Your task to perform on an android device: Go to Reddit.com Image 0: 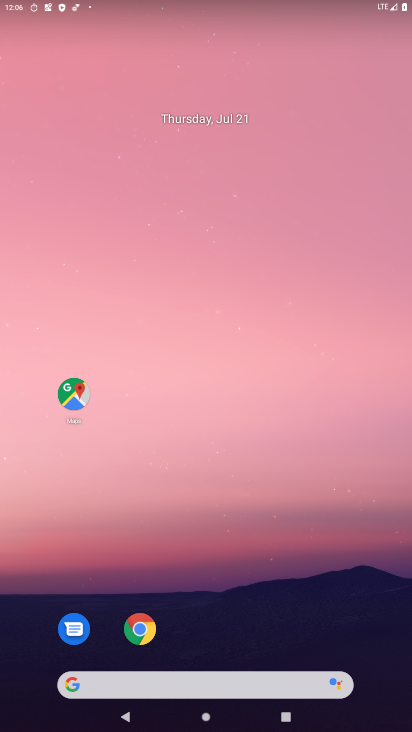
Step 0: drag from (183, 676) to (238, 17)
Your task to perform on an android device: Go to Reddit.com Image 1: 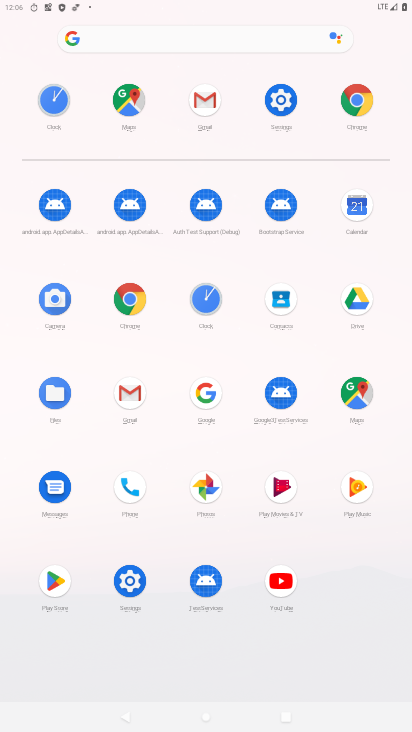
Step 1: click (131, 293)
Your task to perform on an android device: Go to Reddit.com Image 2: 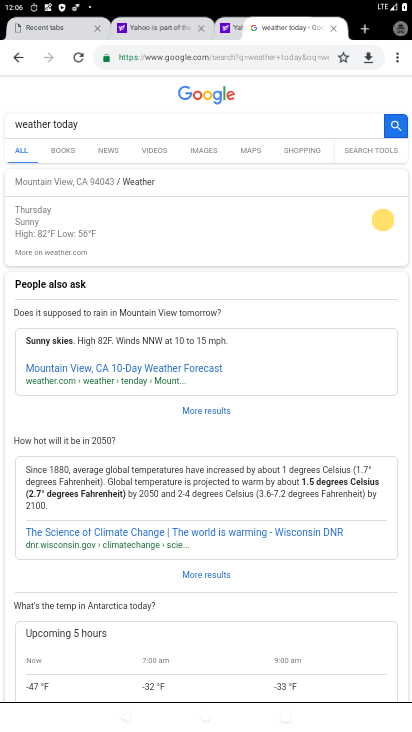
Step 2: click (232, 43)
Your task to perform on an android device: Go to Reddit.com Image 3: 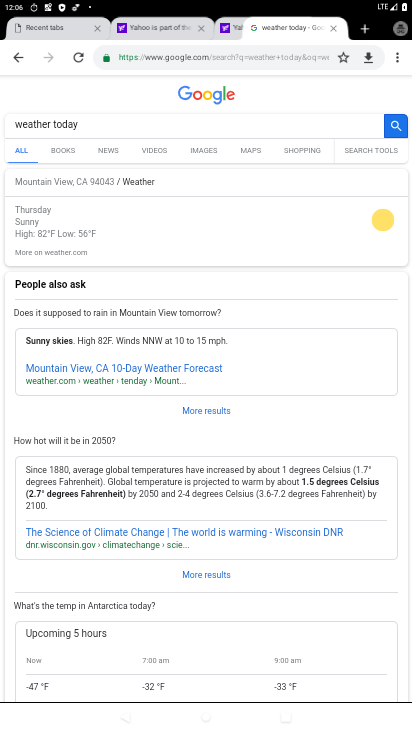
Step 3: click (255, 57)
Your task to perform on an android device: Go to Reddit.com Image 4: 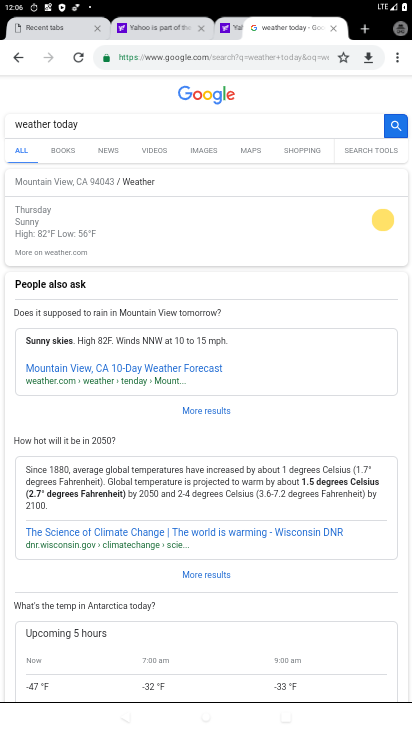
Step 4: click (255, 57)
Your task to perform on an android device: Go to Reddit.com Image 5: 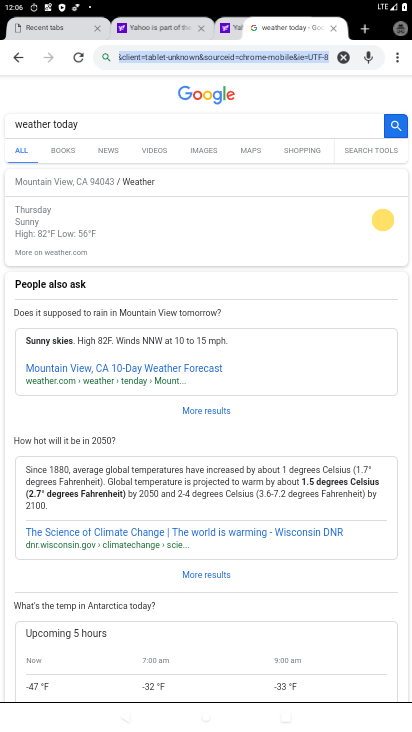
Step 5: click (255, 57)
Your task to perform on an android device: Go to Reddit.com Image 6: 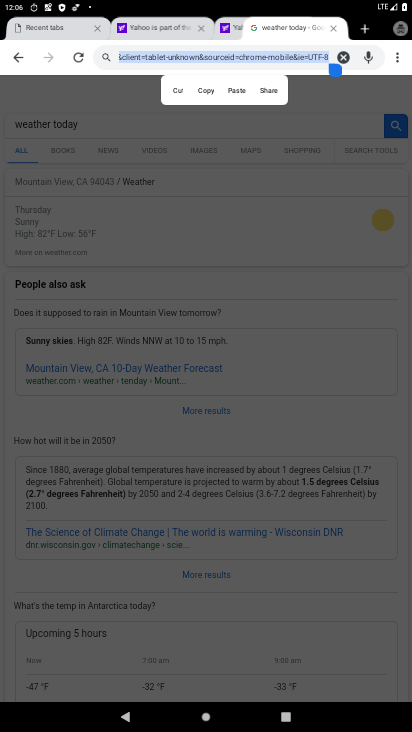
Step 6: click (343, 55)
Your task to perform on an android device: Go to Reddit.com Image 7: 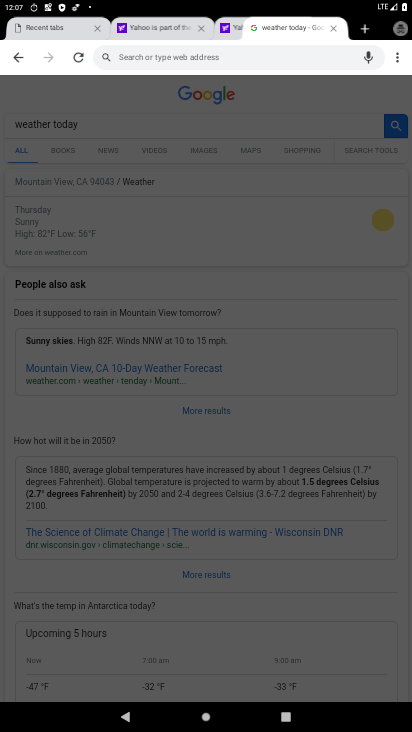
Step 7: type "reddit.com"
Your task to perform on an android device: Go to Reddit.com Image 8: 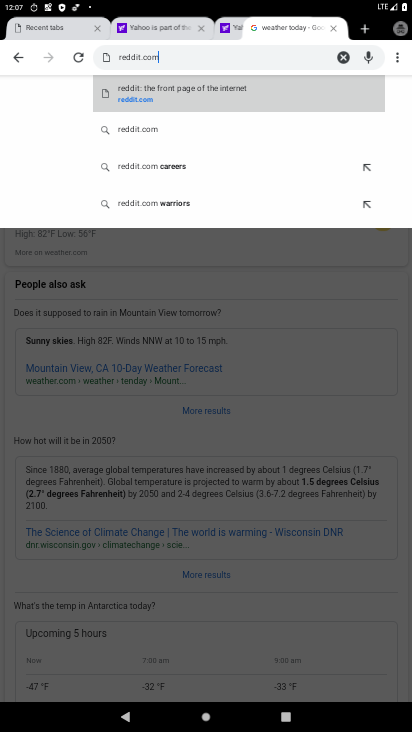
Step 8: click (195, 99)
Your task to perform on an android device: Go to Reddit.com Image 9: 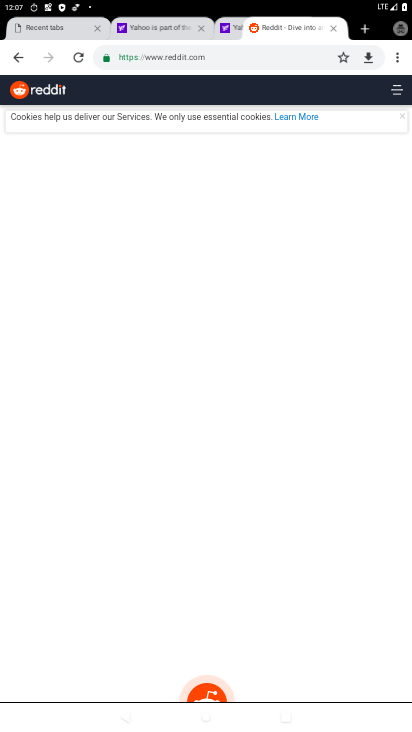
Step 9: task complete